Your task to perform on an android device: Empty the shopping cart on target.com. Image 0: 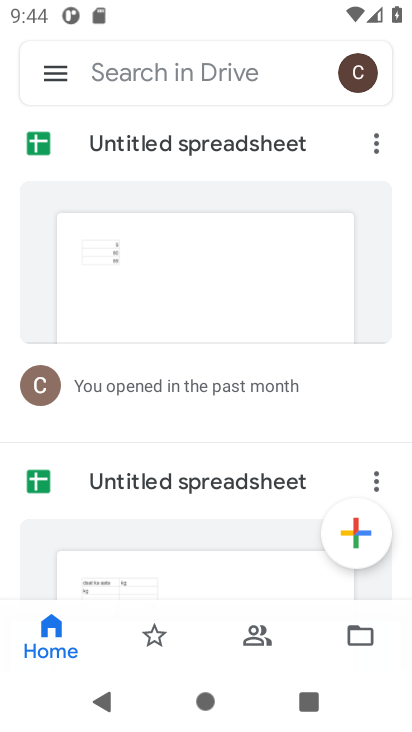
Step 0: press home button
Your task to perform on an android device: Empty the shopping cart on target.com. Image 1: 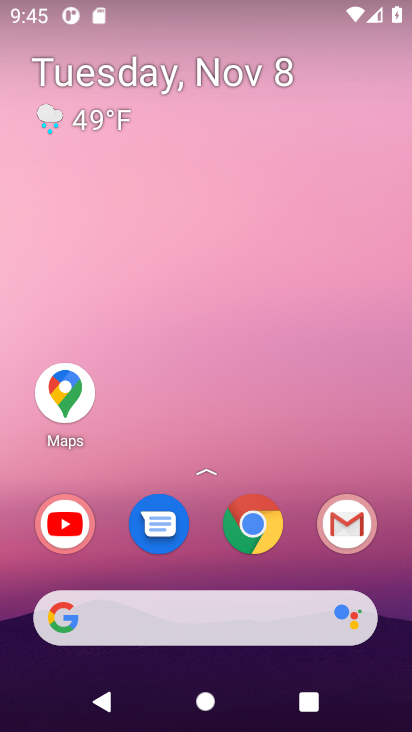
Step 1: click (262, 532)
Your task to perform on an android device: Empty the shopping cart on target.com. Image 2: 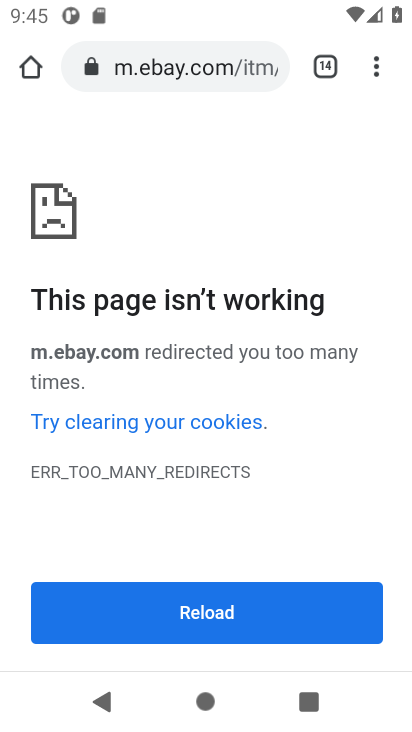
Step 2: click (197, 72)
Your task to perform on an android device: Empty the shopping cart on target.com. Image 3: 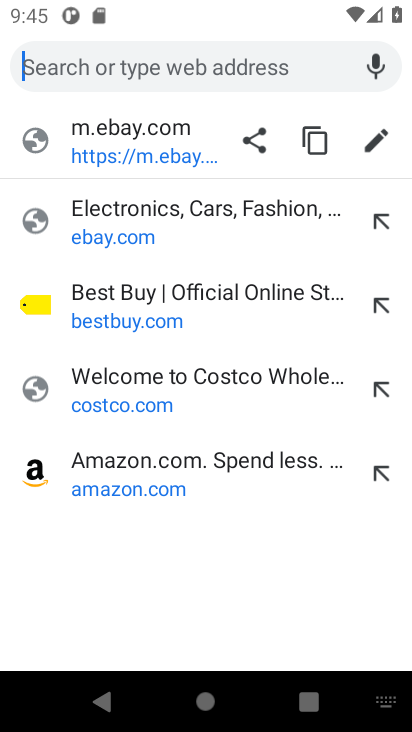
Step 3: type "target.com"
Your task to perform on an android device: Empty the shopping cart on target.com. Image 4: 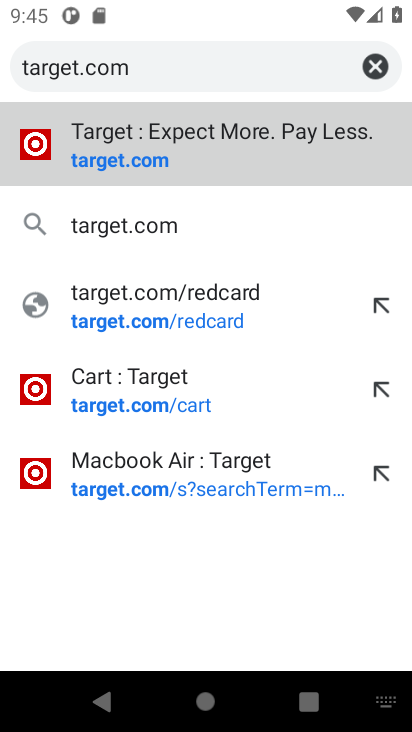
Step 4: click (154, 165)
Your task to perform on an android device: Empty the shopping cart on target.com. Image 5: 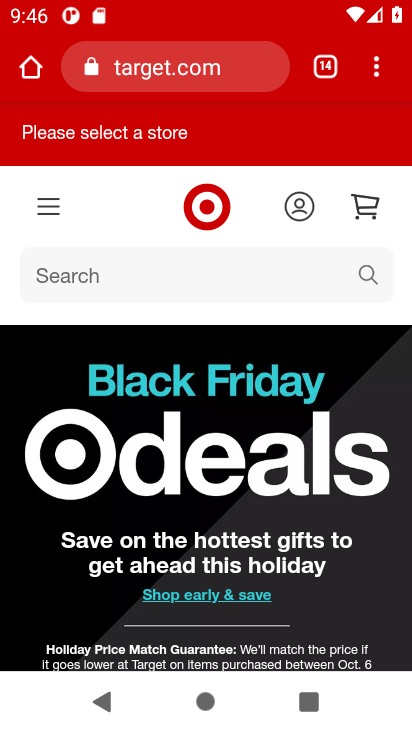
Step 5: click (357, 211)
Your task to perform on an android device: Empty the shopping cart on target.com. Image 6: 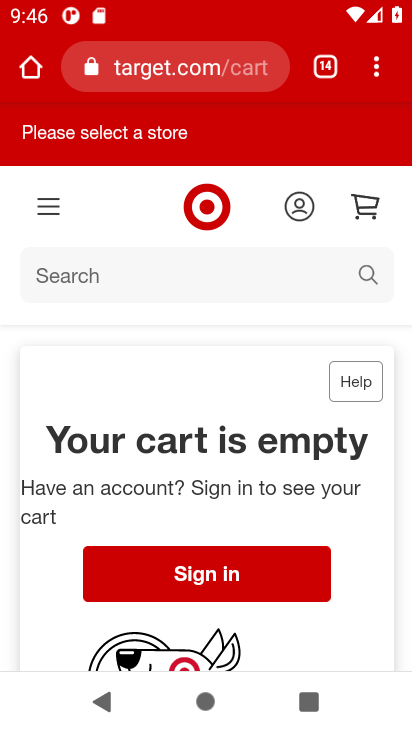
Step 6: task complete